Your task to perform on an android device: move an email to a new category in the gmail app Image 0: 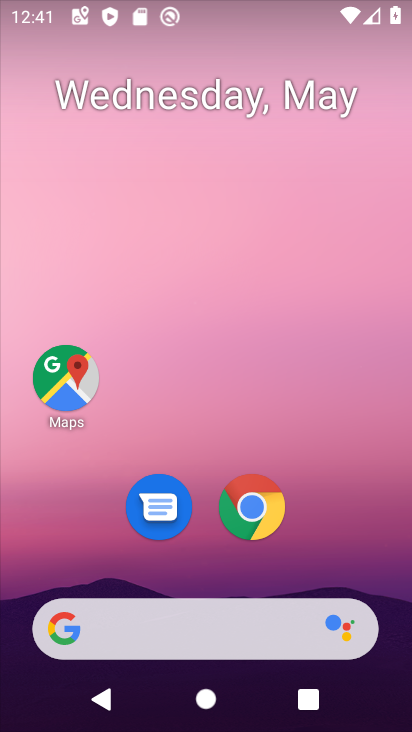
Step 0: drag from (400, 611) to (356, 74)
Your task to perform on an android device: move an email to a new category in the gmail app Image 1: 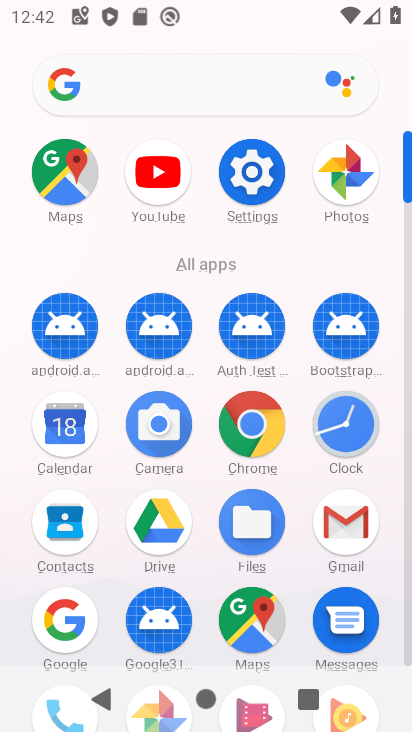
Step 1: click (409, 647)
Your task to perform on an android device: move an email to a new category in the gmail app Image 2: 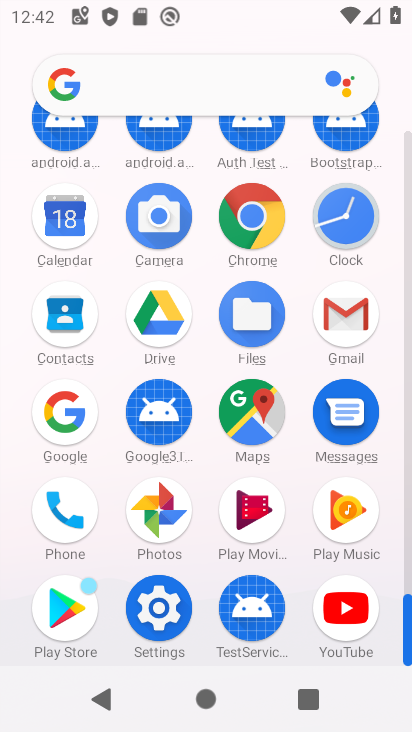
Step 2: click (346, 315)
Your task to perform on an android device: move an email to a new category in the gmail app Image 3: 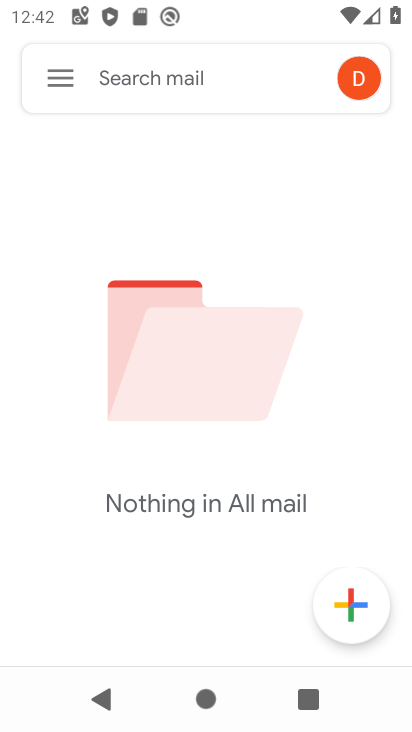
Step 3: click (60, 75)
Your task to perform on an android device: move an email to a new category in the gmail app Image 4: 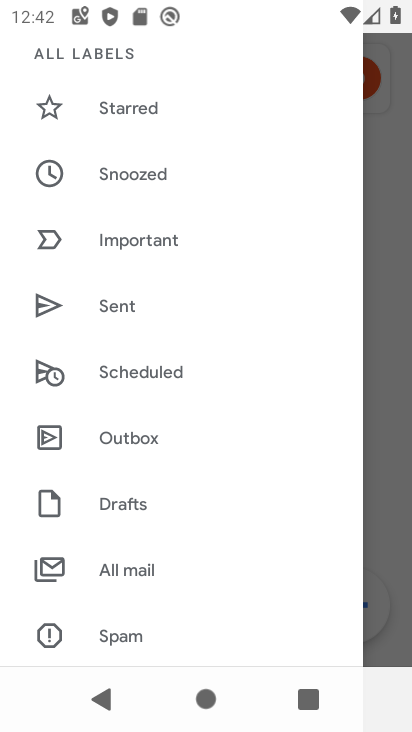
Step 4: click (123, 564)
Your task to perform on an android device: move an email to a new category in the gmail app Image 5: 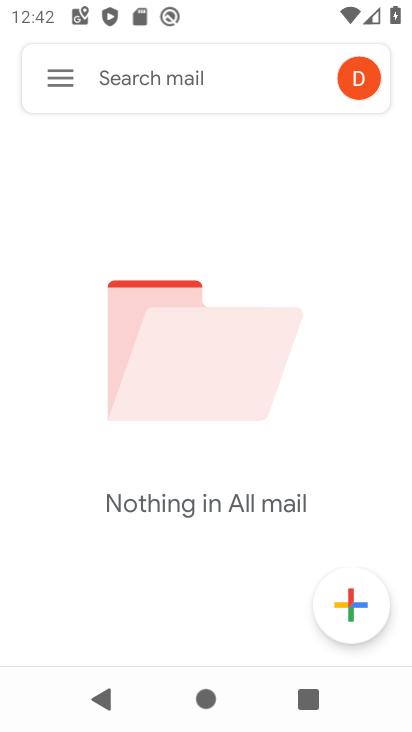
Step 5: task complete